Your task to perform on an android device: change text size in settings app Image 0: 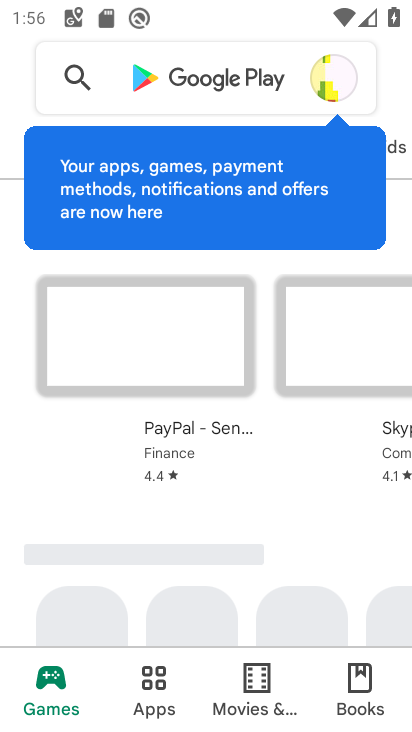
Step 0: press home button
Your task to perform on an android device: change text size in settings app Image 1: 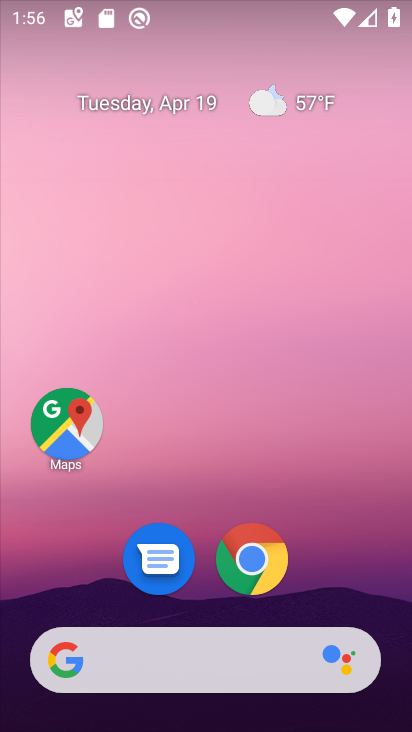
Step 1: drag from (205, 599) to (212, 75)
Your task to perform on an android device: change text size in settings app Image 2: 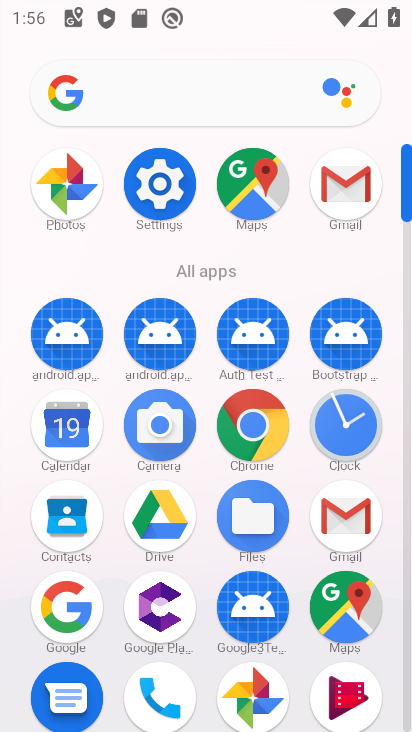
Step 2: click (160, 178)
Your task to perform on an android device: change text size in settings app Image 3: 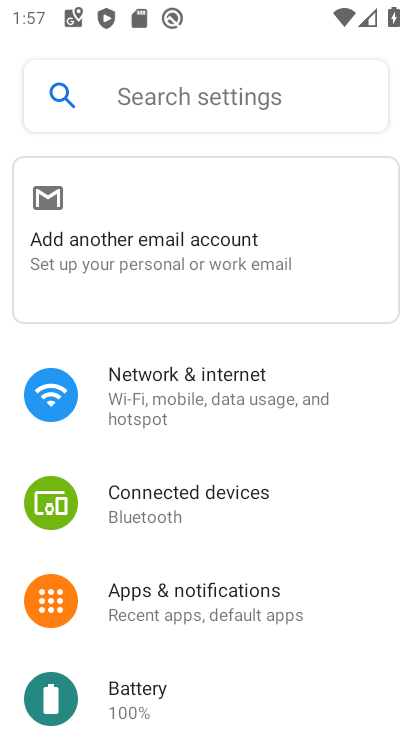
Step 3: drag from (188, 654) to (221, 69)
Your task to perform on an android device: change text size in settings app Image 4: 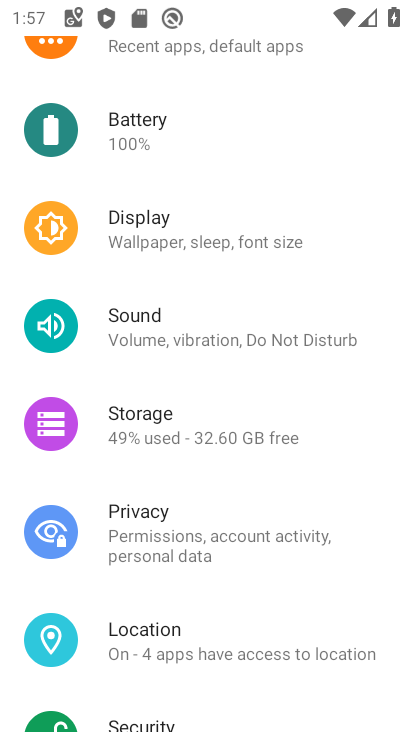
Step 4: click (187, 229)
Your task to perform on an android device: change text size in settings app Image 5: 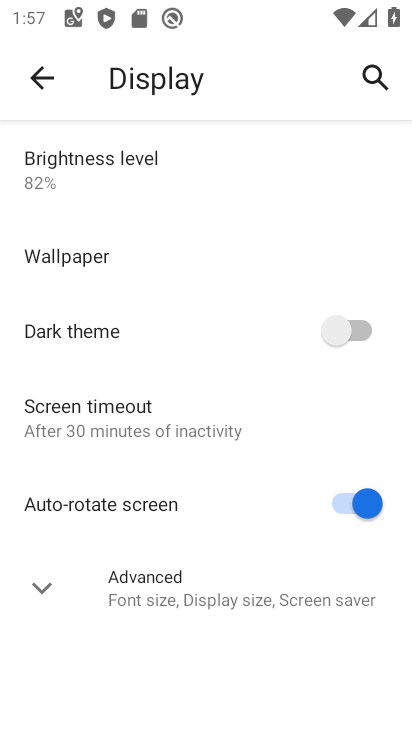
Step 5: click (46, 583)
Your task to perform on an android device: change text size in settings app Image 6: 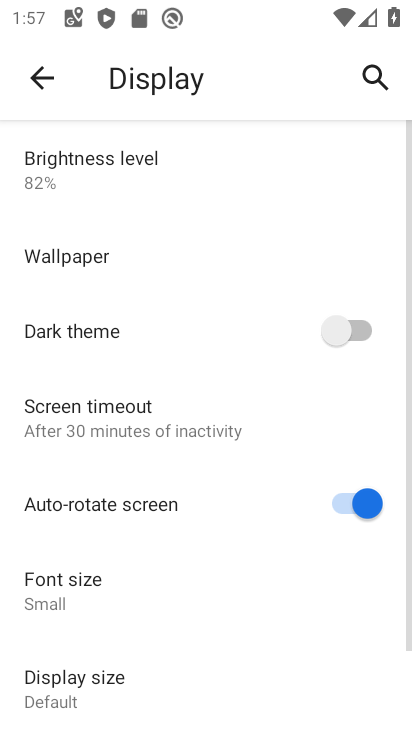
Step 6: click (99, 592)
Your task to perform on an android device: change text size in settings app Image 7: 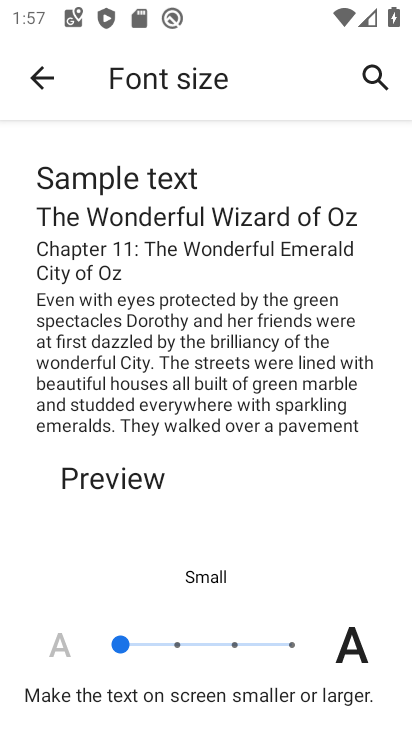
Step 7: click (176, 646)
Your task to perform on an android device: change text size in settings app Image 8: 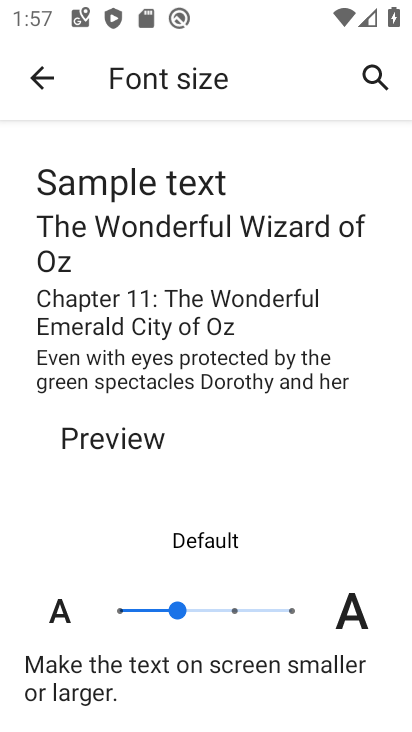
Step 8: task complete